Your task to perform on an android device: change the clock style Image 0: 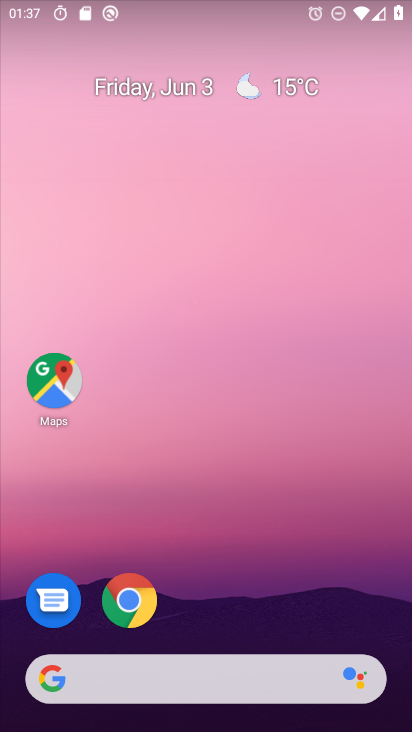
Step 0: drag from (220, 587) to (233, 30)
Your task to perform on an android device: change the clock style Image 1: 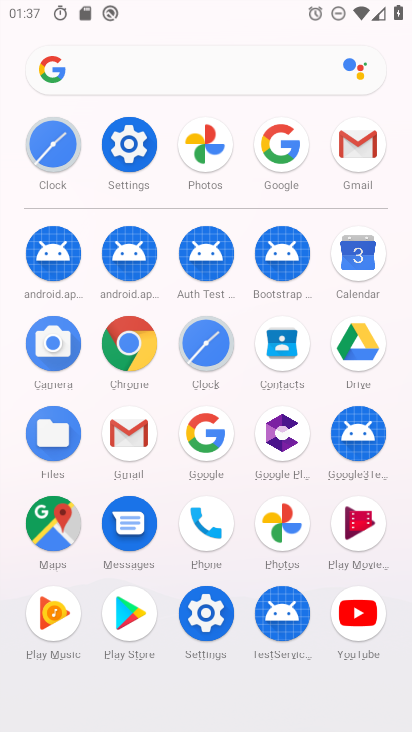
Step 1: click (214, 350)
Your task to perform on an android device: change the clock style Image 2: 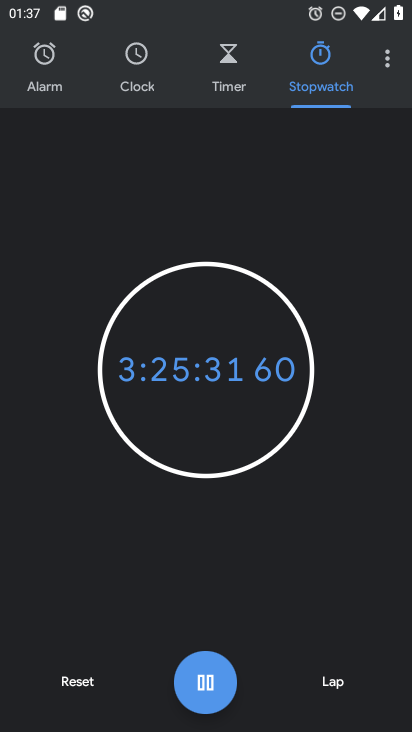
Step 2: click (378, 61)
Your task to perform on an android device: change the clock style Image 3: 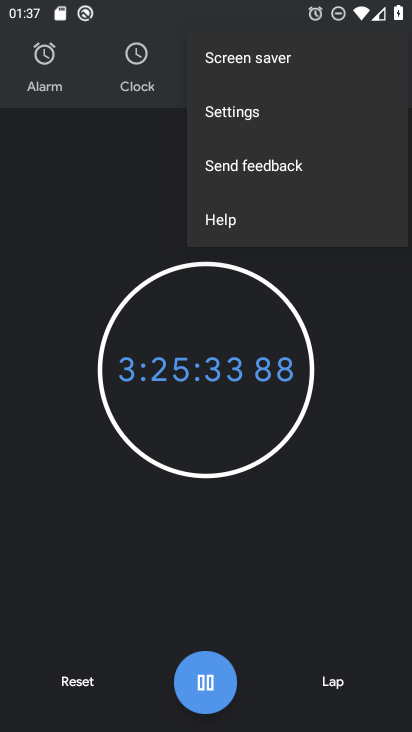
Step 3: click (222, 117)
Your task to perform on an android device: change the clock style Image 4: 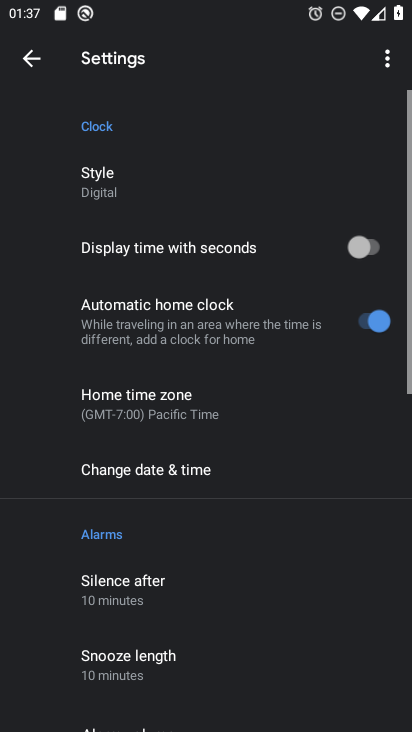
Step 4: click (148, 188)
Your task to perform on an android device: change the clock style Image 5: 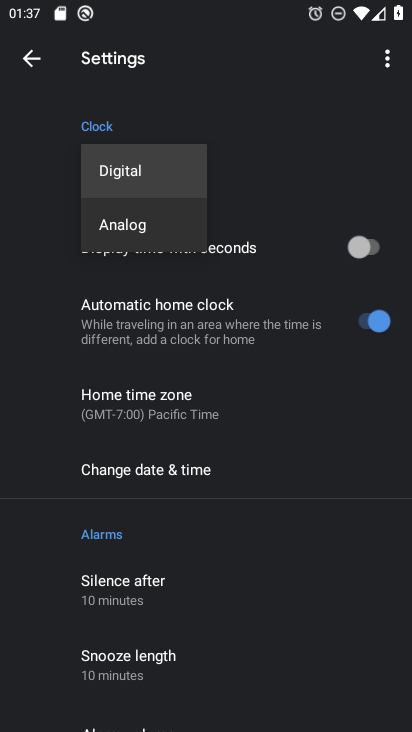
Step 5: click (151, 228)
Your task to perform on an android device: change the clock style Image 6: 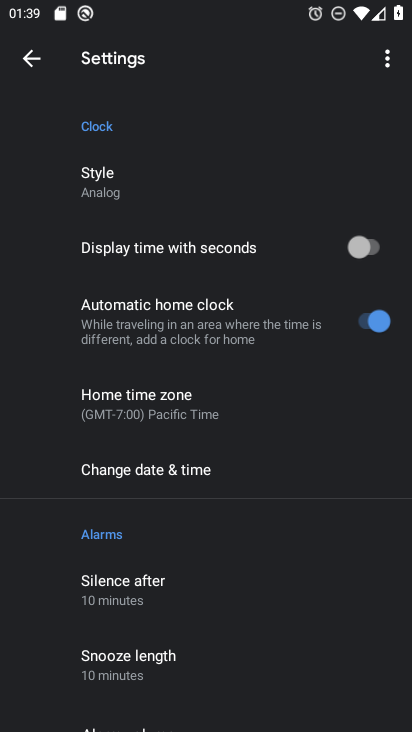
Step 6: task complete